Your task to perform on an android device: Open Chrome and go to settings Image 0: 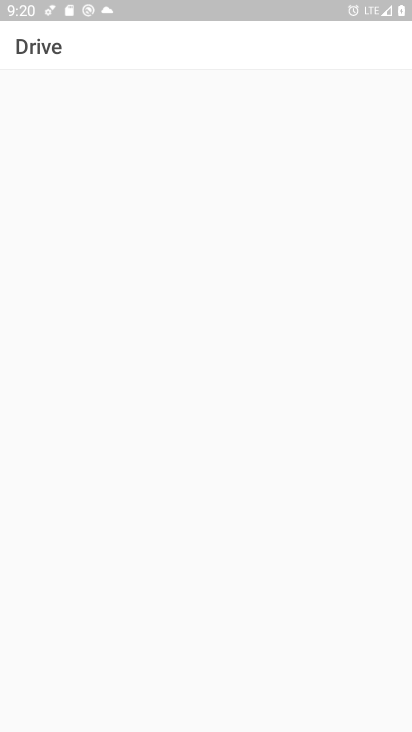
Step 0: press home button
Your task to perform on an android device: Open Chrome and go to settings Image 1: 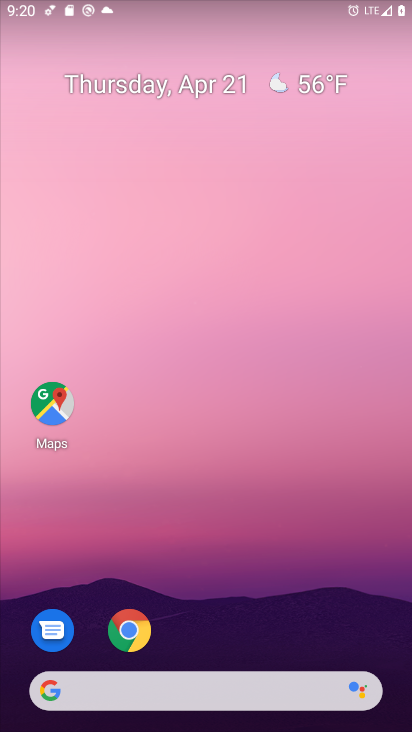
Step 1: click (138, 641)
Your task to perform on an android device: Open Chrome and go to settings Image 2: 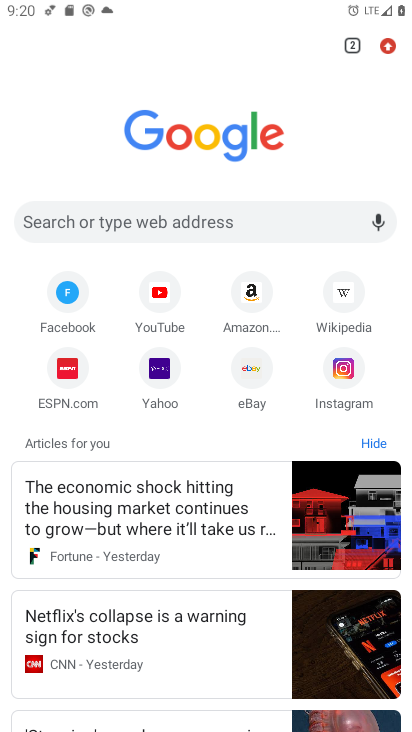
Step 2: click (393, 52)
Your task to perform on an android device: Open Chrome and go to settings Image 3: 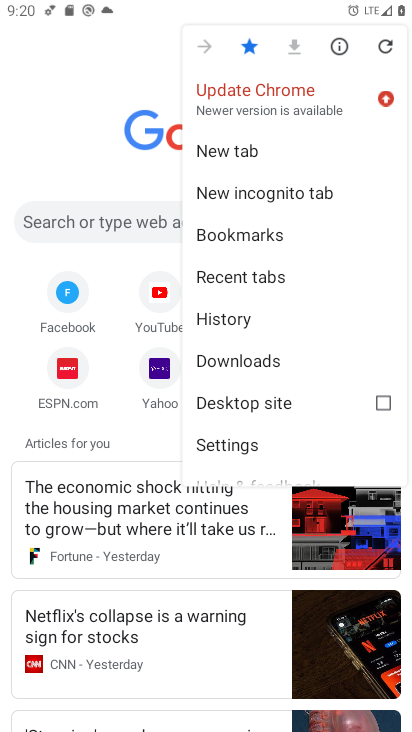
Step 3: click (251, 447)
Your task to perform on an android device: Open Chrome and go to settings Image 4: 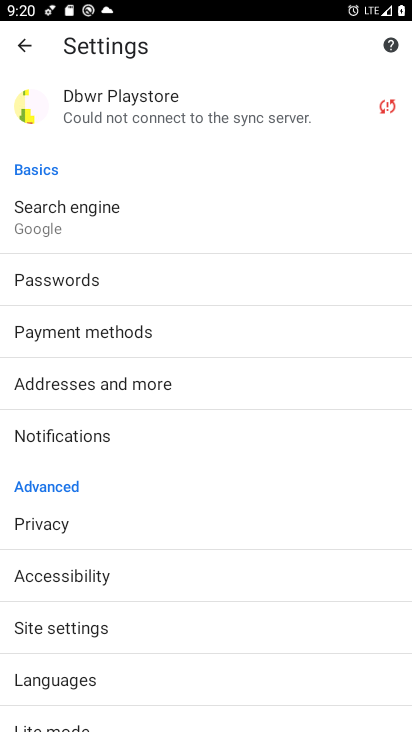
Step 4: task complete